Your task to perform on an android device: turn on translation in the chrome app Image 0: 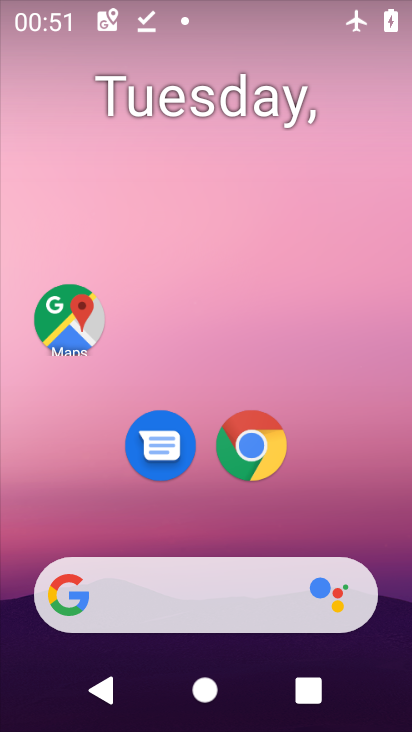
Step 0: click (252, 431)
Your task to perform on an android device: turn on translation in the chrome app Image 1: 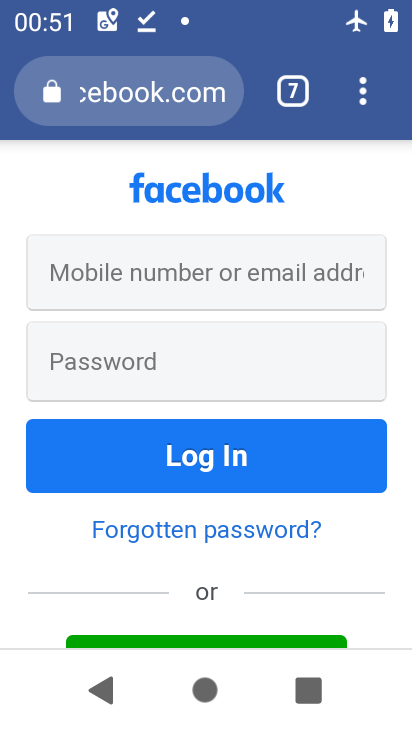
Step 1: click (370, 84)
Your task to perform on an android device: turn on translation in the chrome app Image 2: 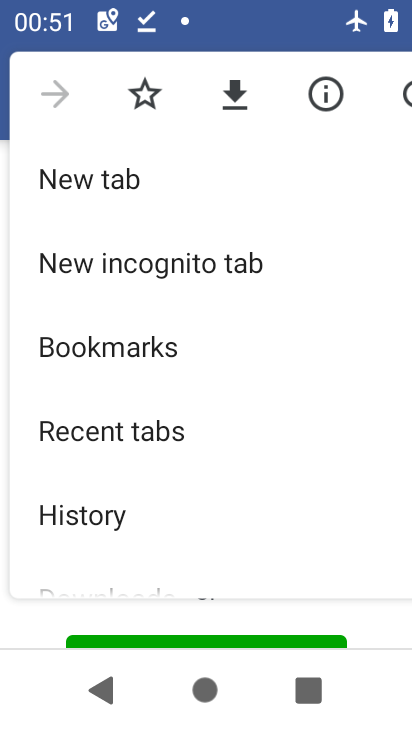
Step 2: drag from (231, 468) to (154, 179)
Your task to perform on an android device: turn on translation in the chrome app Image 3: 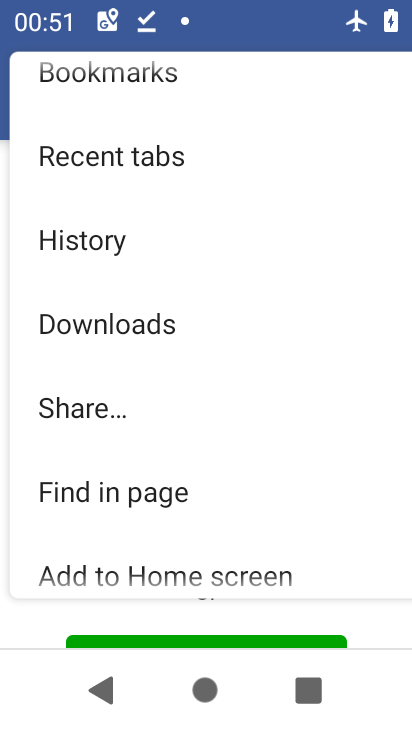
Step 3: drag from (162, 449) to (144, 94)
Your task to perform on an android device: turn on translation in the chrome app Image 4: 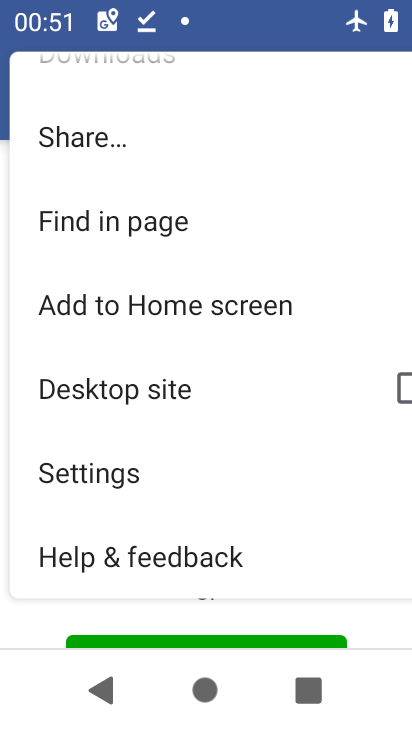
Step 4: click (86, 478)
Your task to perform on an android device: turn on translation in the chrome app Image 5: 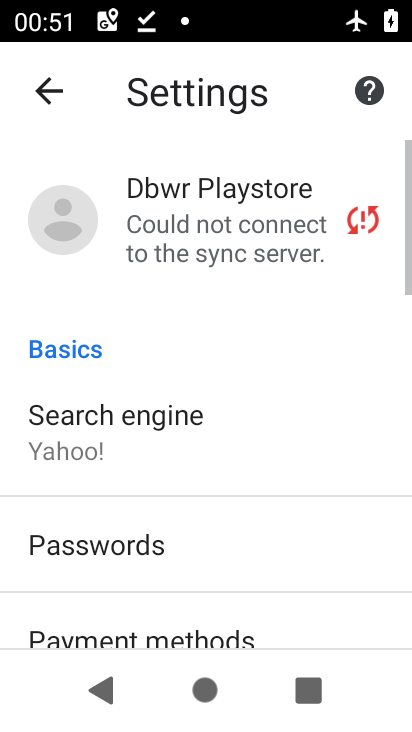
Step 5: drag from (232, 496) to (166, 138)
Your task to perform on an android device: turn on translation in the chrome app Image 6: 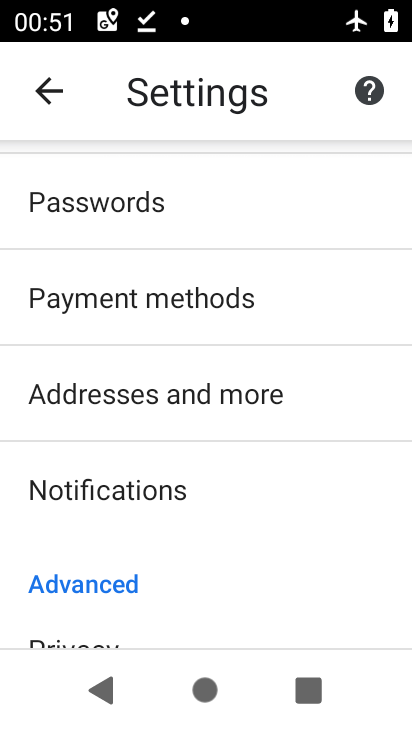
Step 6: drag from (173, 471) to (148, 135)
Your task to perform on an android device: turn on translation in the chrome app Image 7: 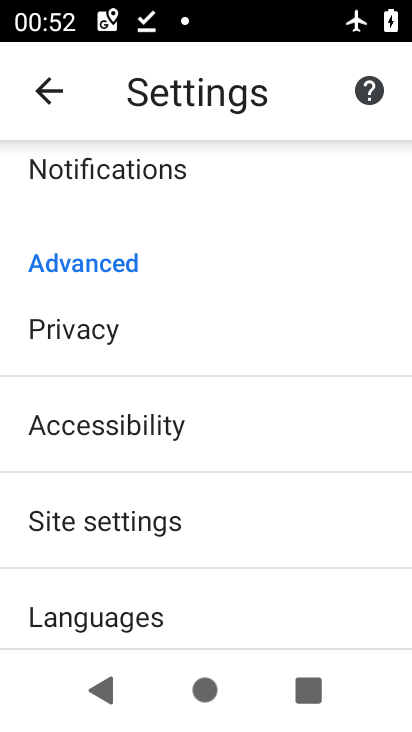
Step 7: drag from (172, 537) to (167, 125)
Your task to perform on an android device: turn on translation in the chrome app Image 8: 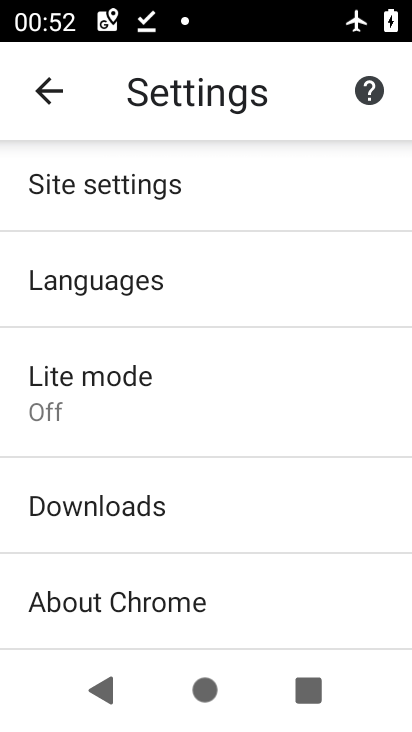
Step 8: click (110, 281)
Your task to perform on an android device: turn on translation in the chrome app Image 9: 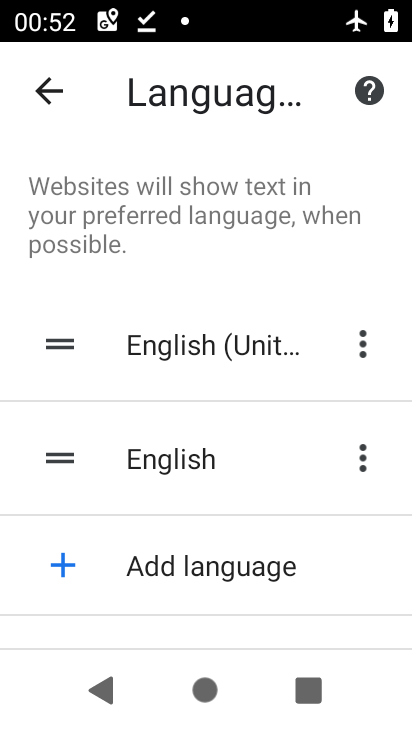
Step 9: task complete